Your task to perform on an android device: change the clock display to analog Image 0: 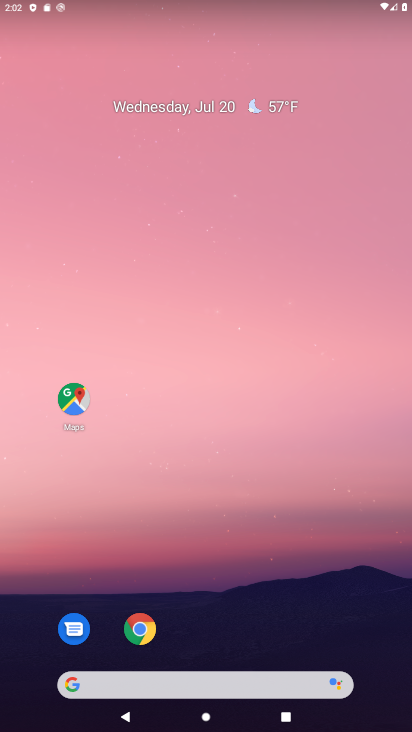
Step 0: drag from (360, 640) to (335, 30)
Your task to perform on an android device: change the clock display to analog Image 1: 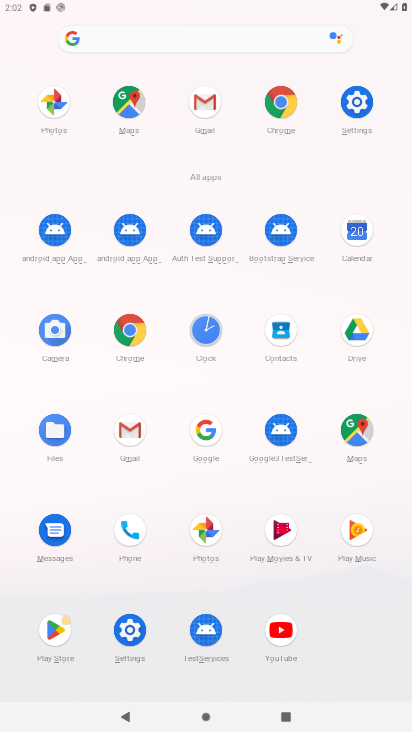
Step 1: click (204, 331)
Your task to perform on an android device: change the clock display to analog Image 2: 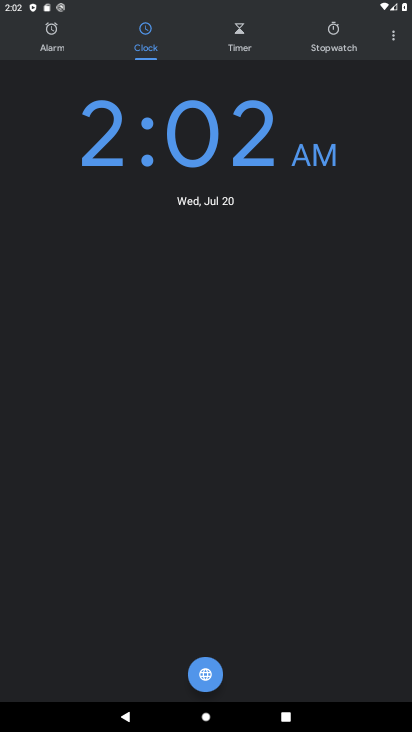
Step 2: click (392, 40)
Your task to perform on an android device: change the clock display to analog Image 3: 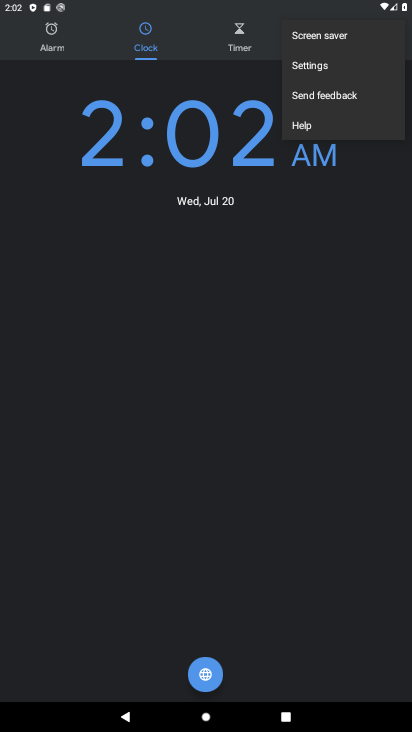
Step 3: click (296, 66)
Your task to perform on an android device: change the clock display to analog Image 4: 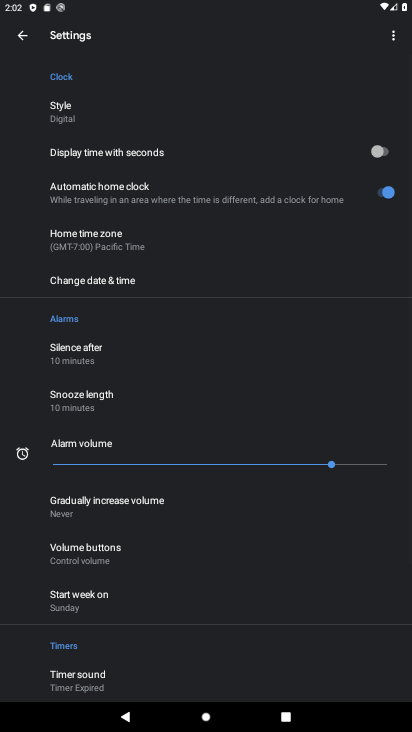
Step 4: click (61, 110)
Your task to perform on an android device: change the clock display to analog Image 5: 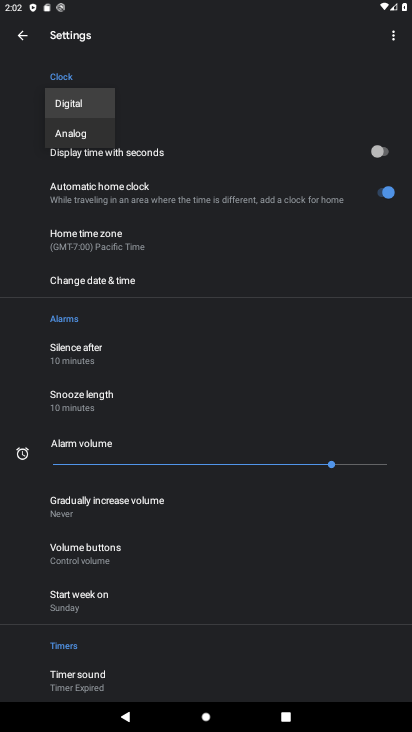
Step 5: click (79, 132)
Your task to perform on an android device: change the clock display to analog Image 6: 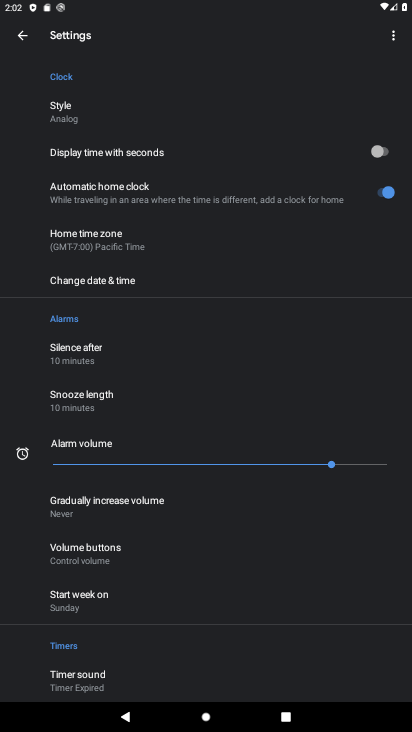
Step 6: task complete